Your task to perform on an android device: Check the weather Image 0: 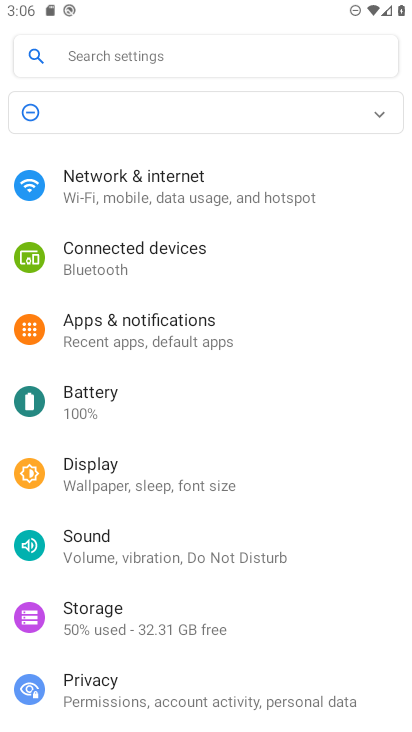
Step 0: press home button
Your task to perform on an android device: Check the weather Image 1: 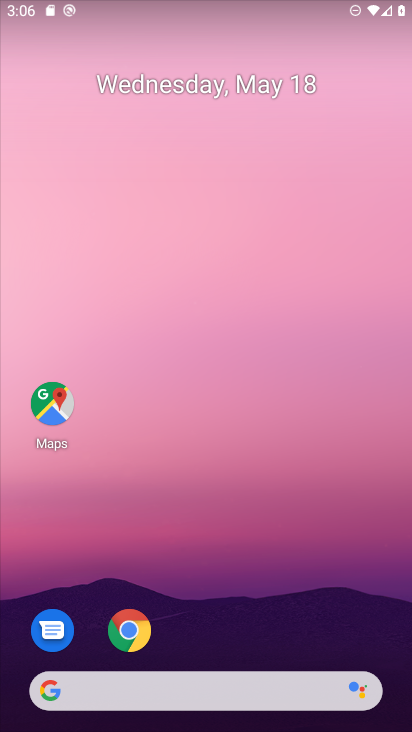
Step 1: drag from (10, 265) to (365, 301)
Your task to perform on an android device: Check the weather Image 2: 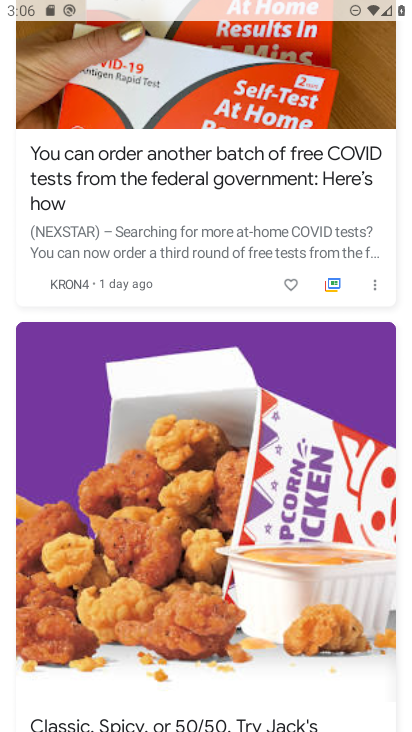
Step 2: drag from (180, 126) to (184, 696)
Your task to perform on an android device: Check the weather Image 3: 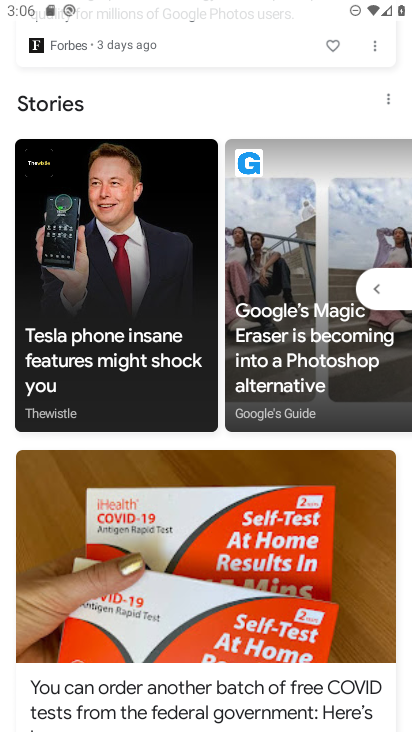
Step 3: drag from (192, 189) to (211, 717)
Your task to perform on an android device: Check the weather Image 4: 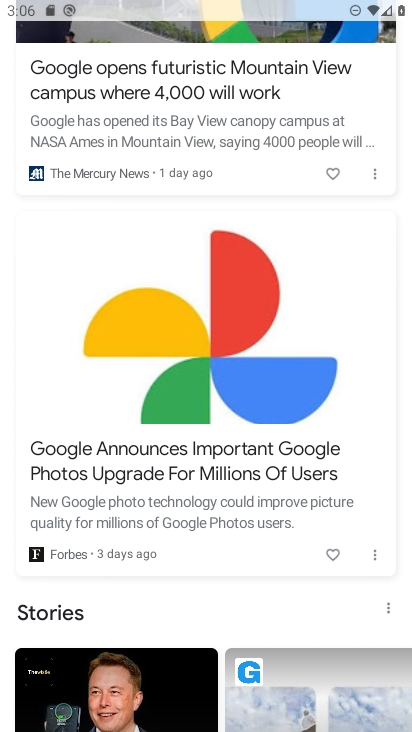
Step 4: drag from (221, 152) to (241, 627)
Your task to perform on an android device: Check the weather Image 5: 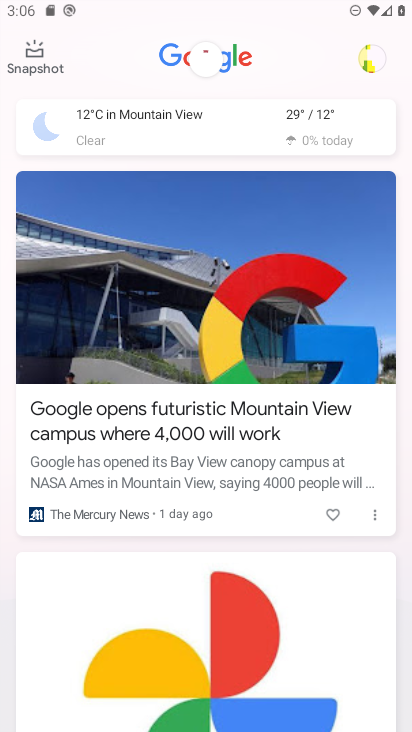
Step 5: click (257, 119)
Your task to perform on an android device: Check the weather Image 6: 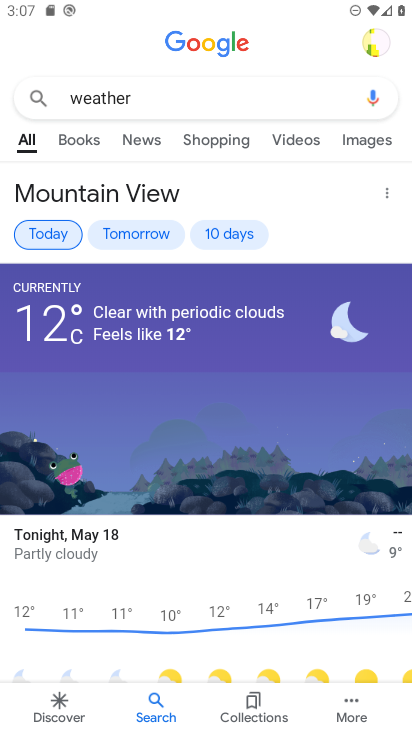
Step 6: task complete